Your task to perform on an android device: change your default location settings in chrome Image 0: 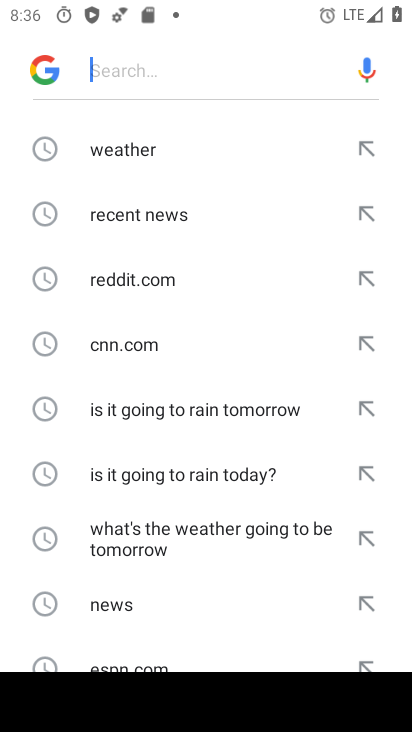
Step 0: press home button
Your task to perform on an android device: change your default location settings in chrome Image 1: 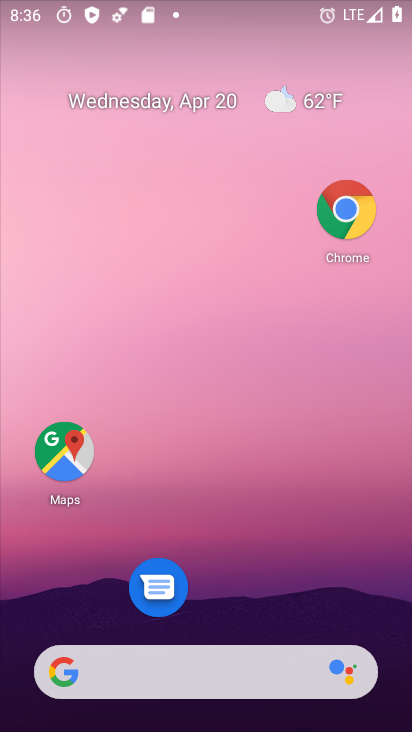
Step 1: click (349, 208)
Your task to perform on an android device: change your default location settings in chrome Image 2: 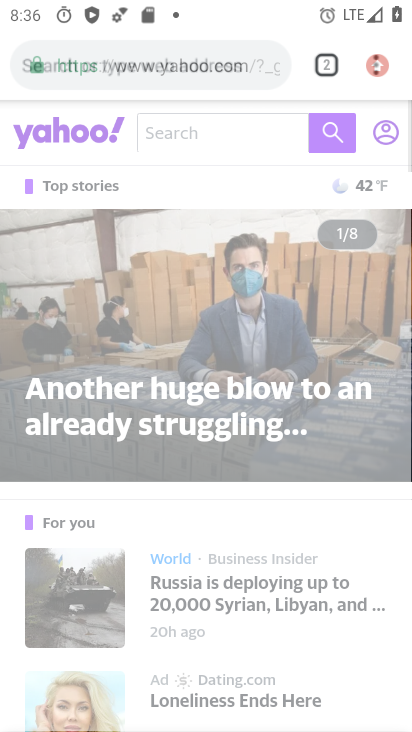
Step 2: click (384, 60)
Your task to perform on an android device: change your default location settings in chrome Image 3: 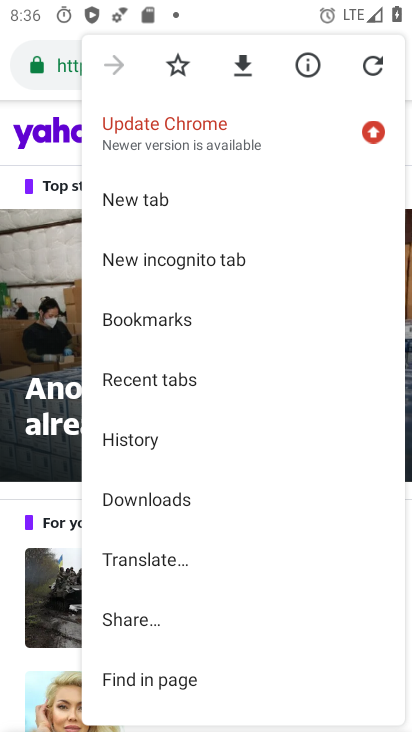
Step 3: drag from (192, 637) to (243, 117)
Your task to perform on an android device: change your default location settings in chrome Image 4: 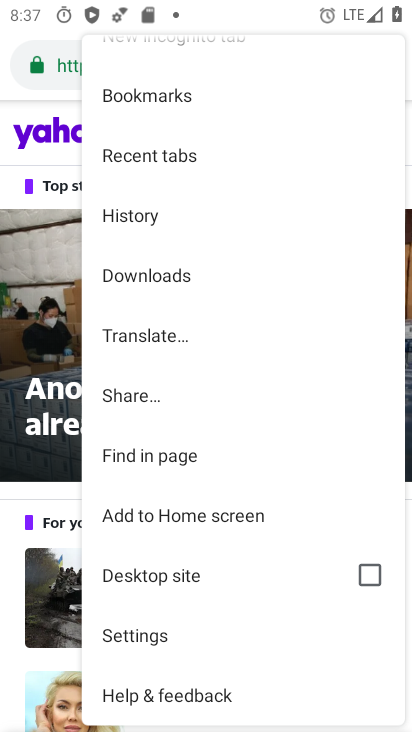
Step 4: click (201, 632)
Your task to perform on an android device: change your default location settings in chrome Image 5: 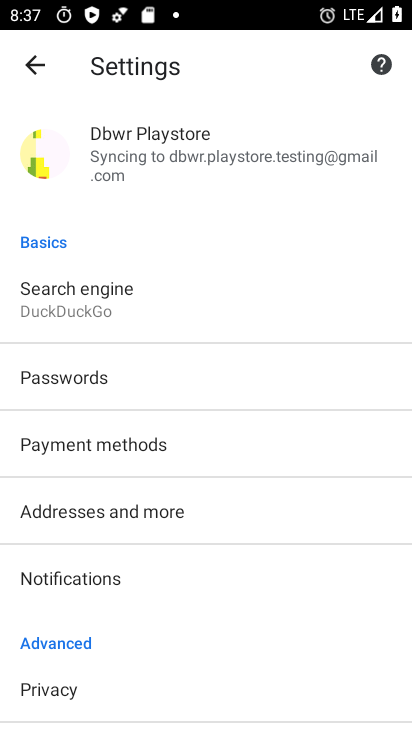
Step 5: drag from (201, 632) to (231, 233)
Your task to perform on an android device: change your default location settings in chrome Image 6: 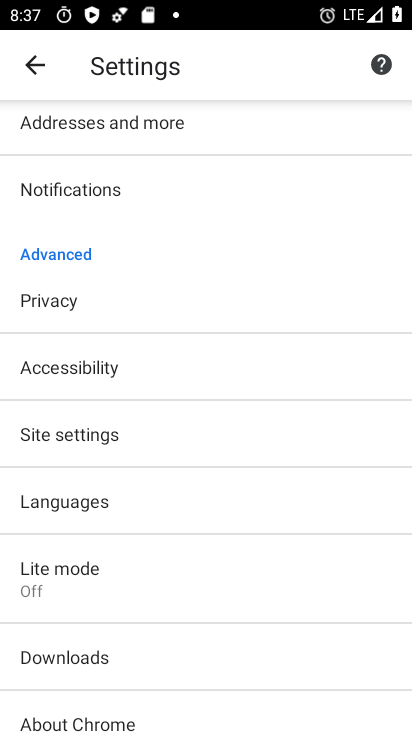
Step 6: click (141, 425)
Your task to perform on an android device: change your default location settings in chrome Image 7: 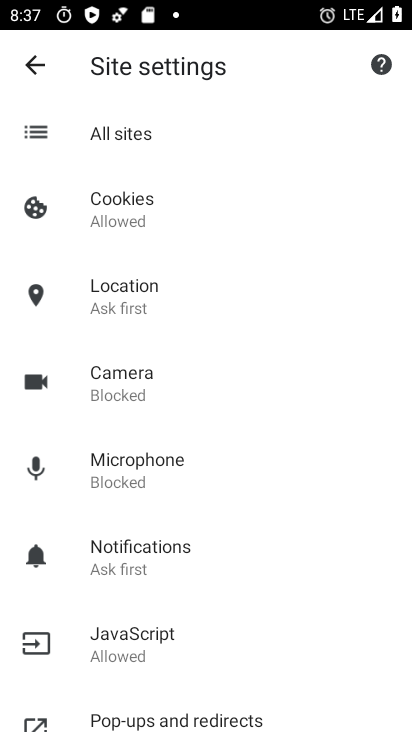
Step 7: click (142, 296)
Your task to perform on an android device: change your default location settings in chrome Image 8: 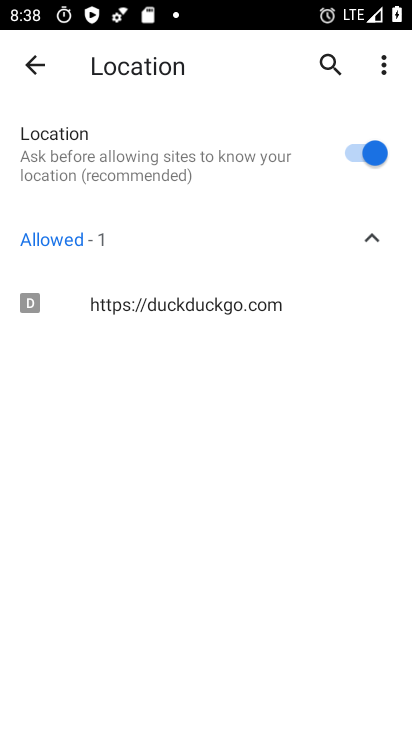
Step 8: click (358, 143)
Your task to perform on an android device: change your default location settings in chrome Image 9: 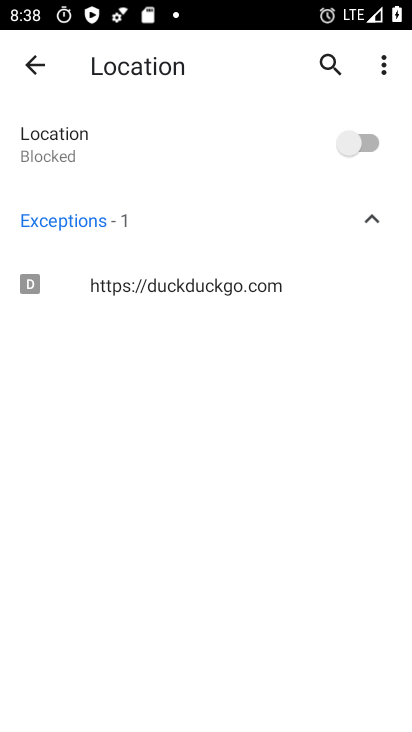
Step 9: task complete